Your task to perform on an android device: Go to accessibility settings Image 0: 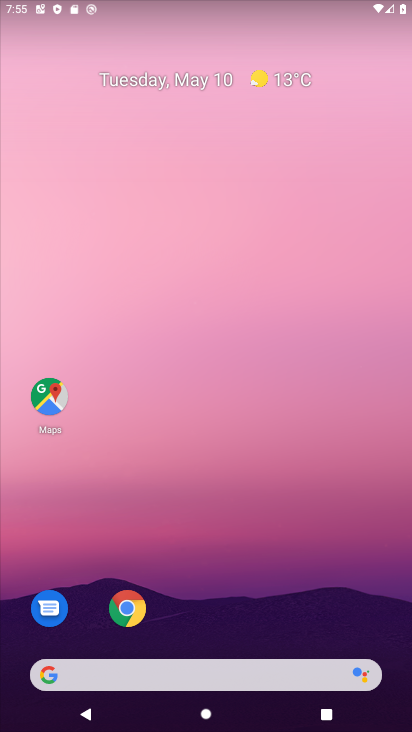
Step 0: drag from (245, 592) to (242, 242)
Your task to perform on an android device: Go to accessibility settings Image 1: 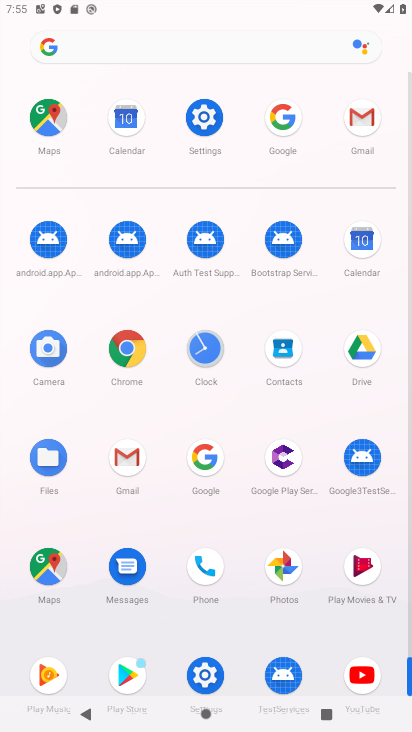
Step 1: click (205, 674)
Your task to perform on an android device: Go to accessibility settings Image 2: 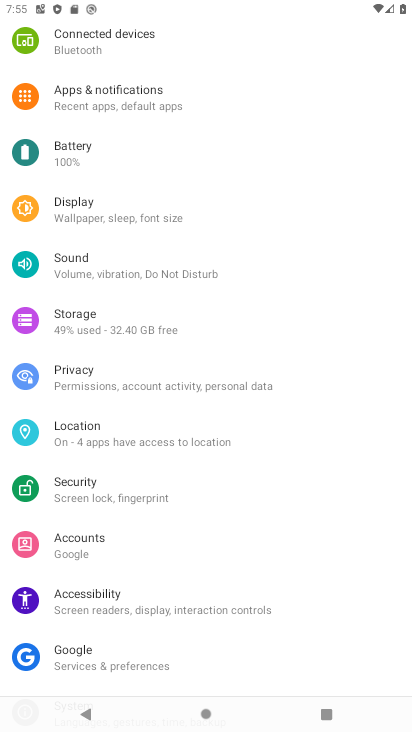
Step 2: click (111, 602)
Your task to perform on an android device: Go to accessibility settings Image 3: 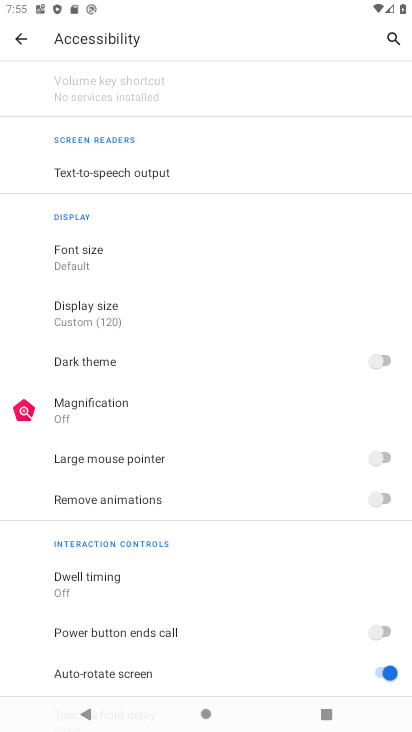
Step 3: task complete